Your task to perform on an android device: Go to Google Image 0: 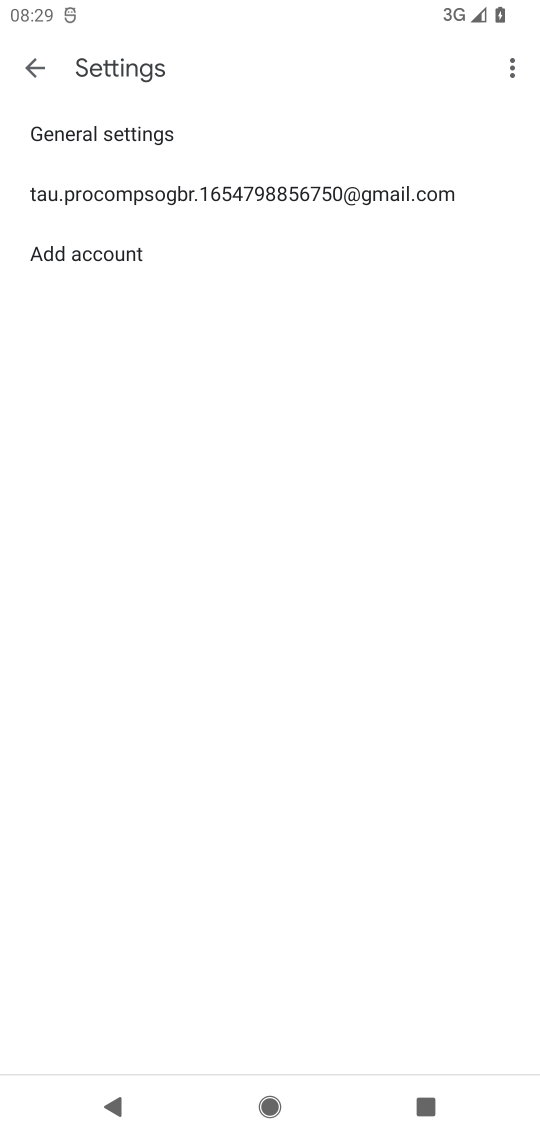
Step 0: press home button
Your task to perform on an android device: Go to Google Image 1: 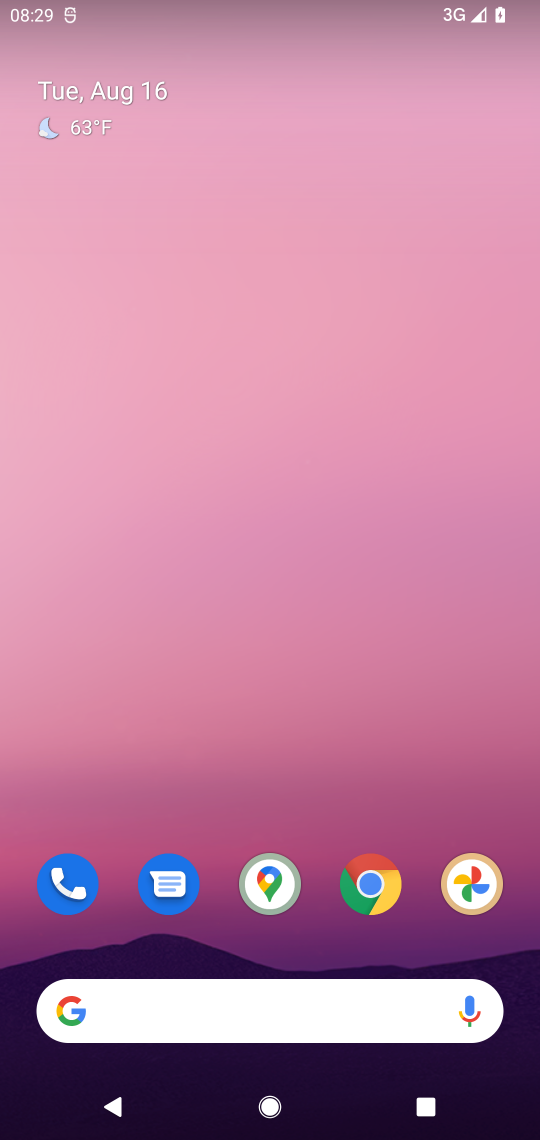
Step 1: drag from (372, 815) to (290, 185)
Your task to perform on an android device: Go to Google Image 2: 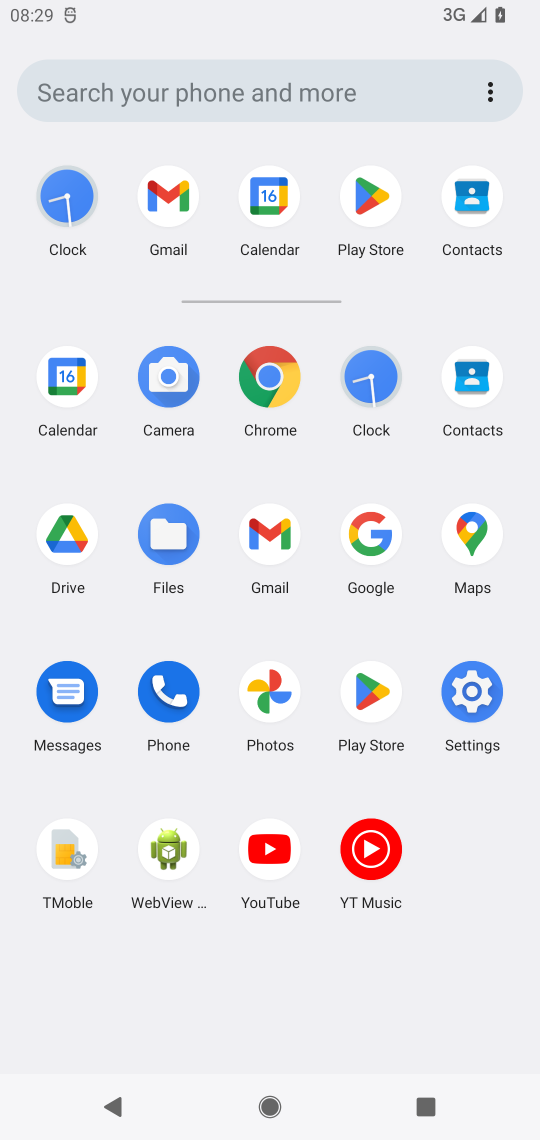
Step 2: click (380, 527)
Your task to perform on an android device: Go to Google Image 3: 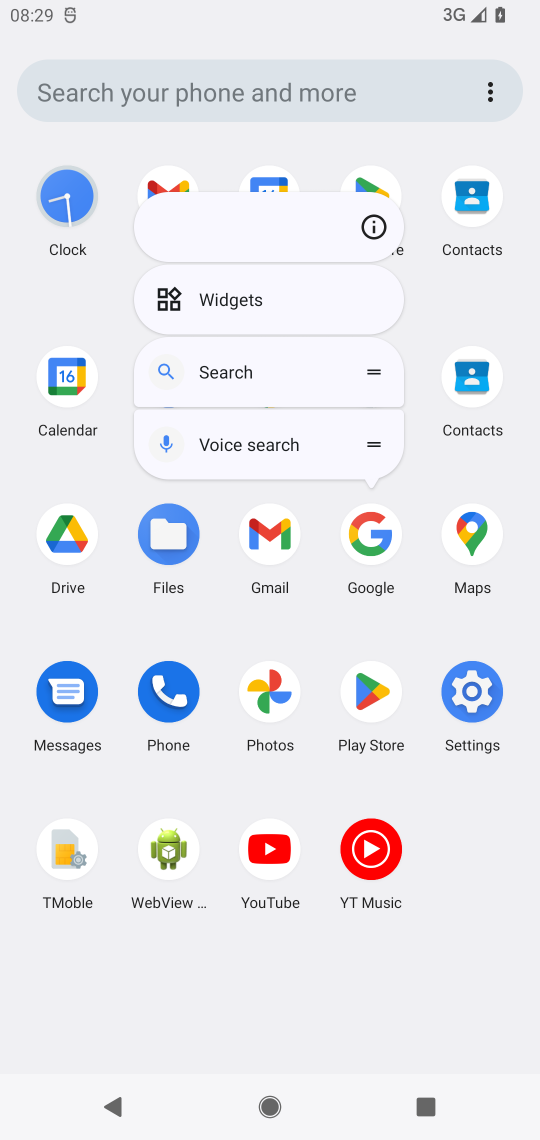
Step 3: click (365, 532)
Your task to perform on an android device: Go to Google Image 4: 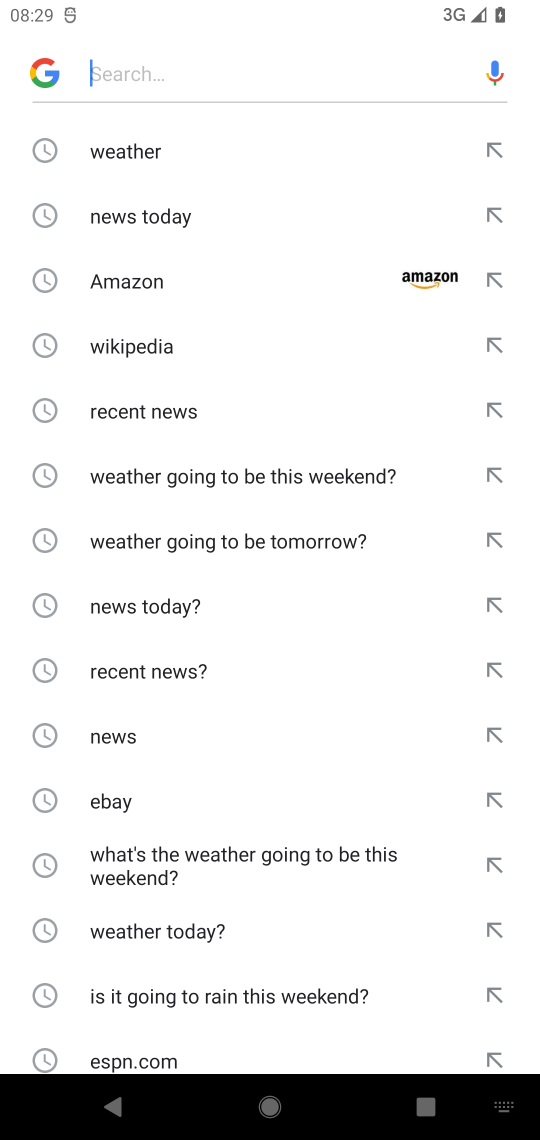
Step 4: click (38, 69)
Your task to perform on an android device: Go to Google Image 5: 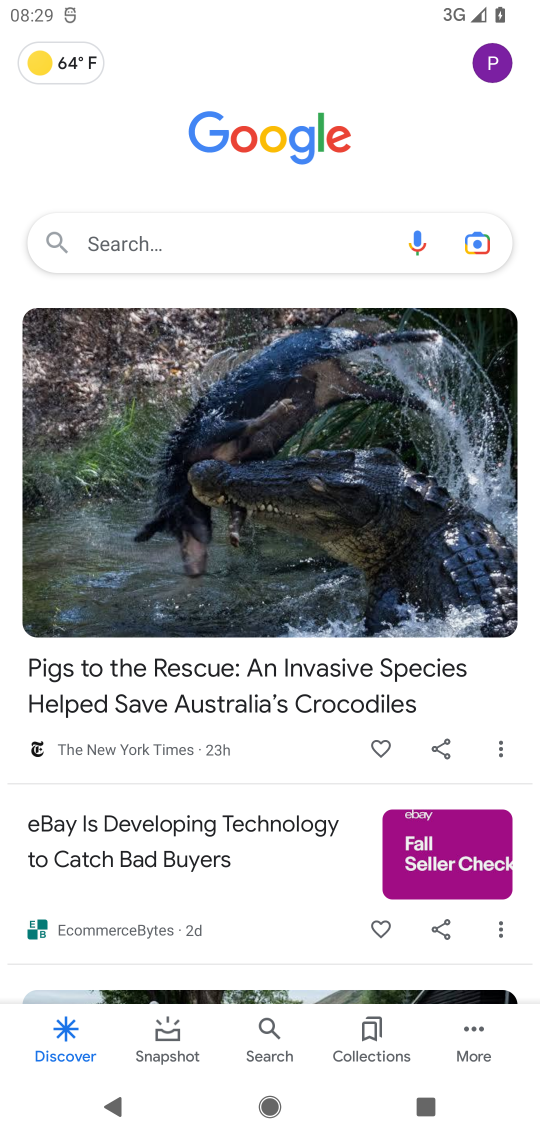
Step 5: task complete